Your task to perform on an android device: Open wifi settings Image 0: 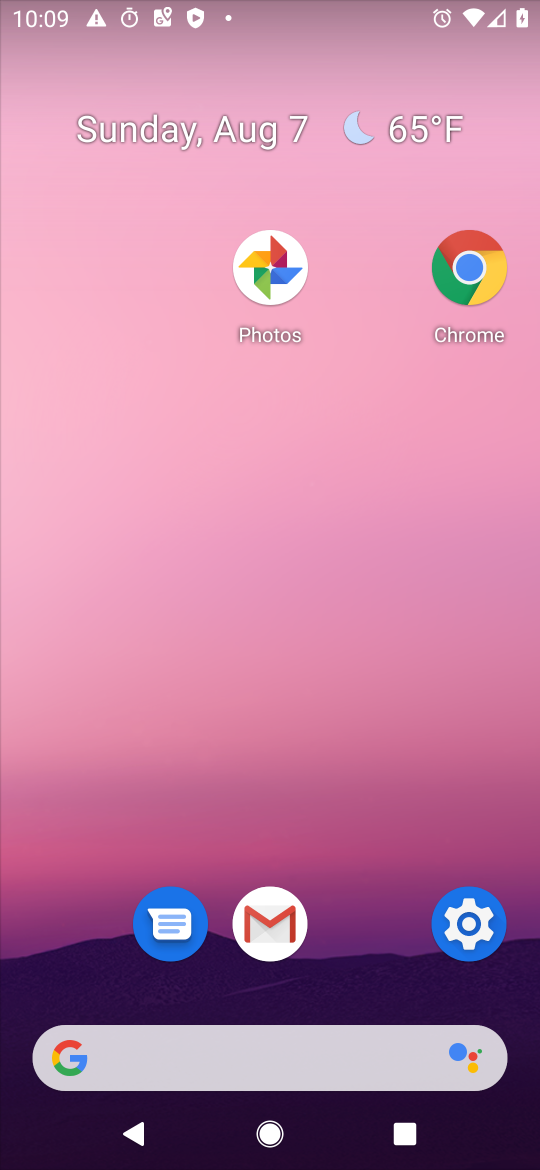
Step 0: press home button
Your task to perform on an android device: Open wifi settings Image 1: 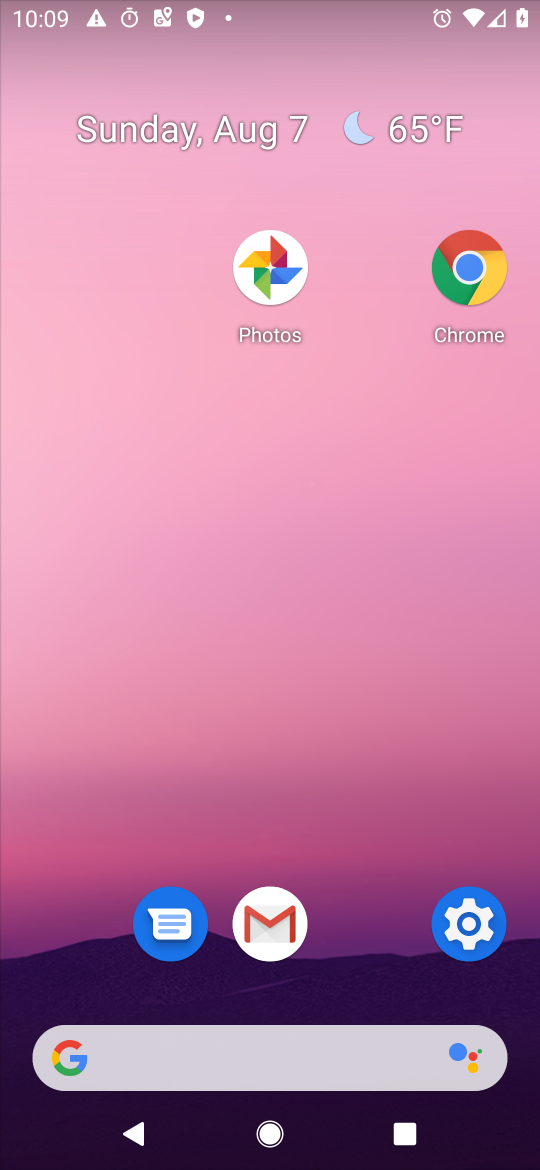
Step 1: drag from (343, 1086) to (316, 7)
Your task to perform on an android device: Open wifi settings Image 2: 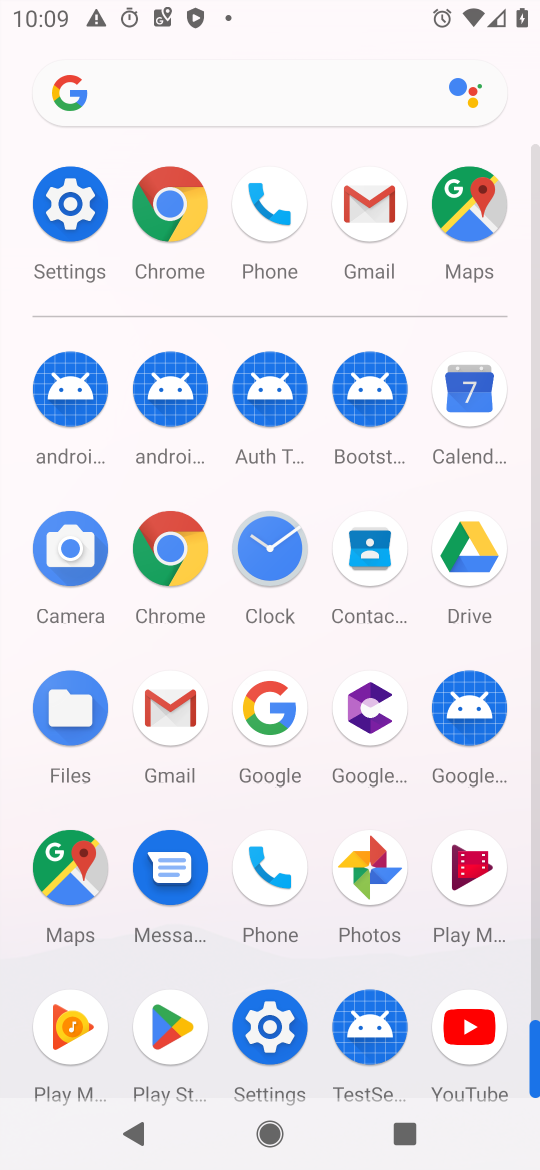
Step 2: click (62, 200)
Your task to perform on an android device: Open wifi settings Image 3: 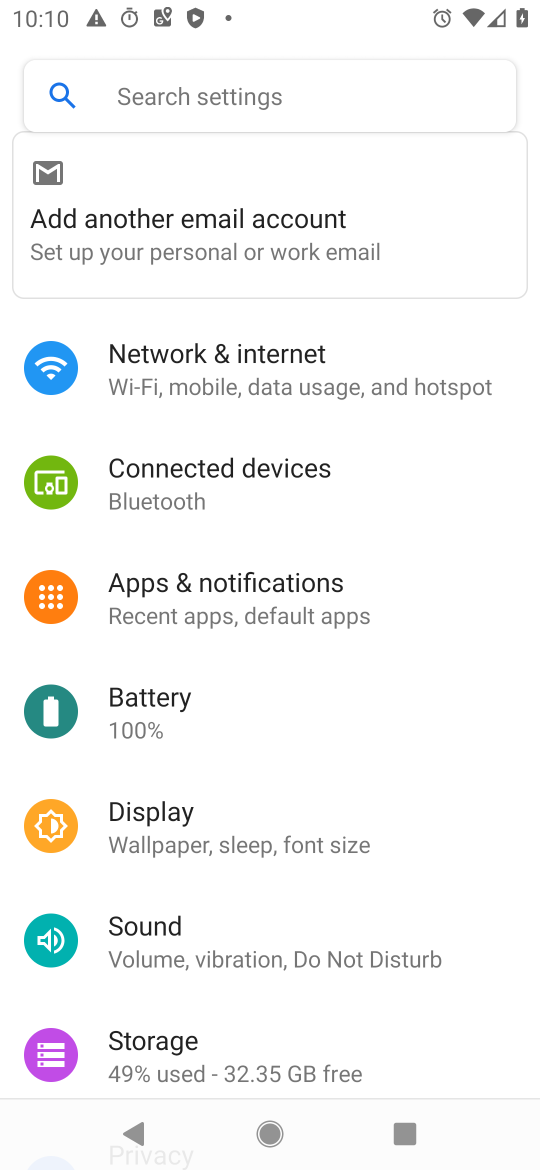
Step 3: click (207, 353)
Your task to perform on an android device: Open wifi settings Image 4: 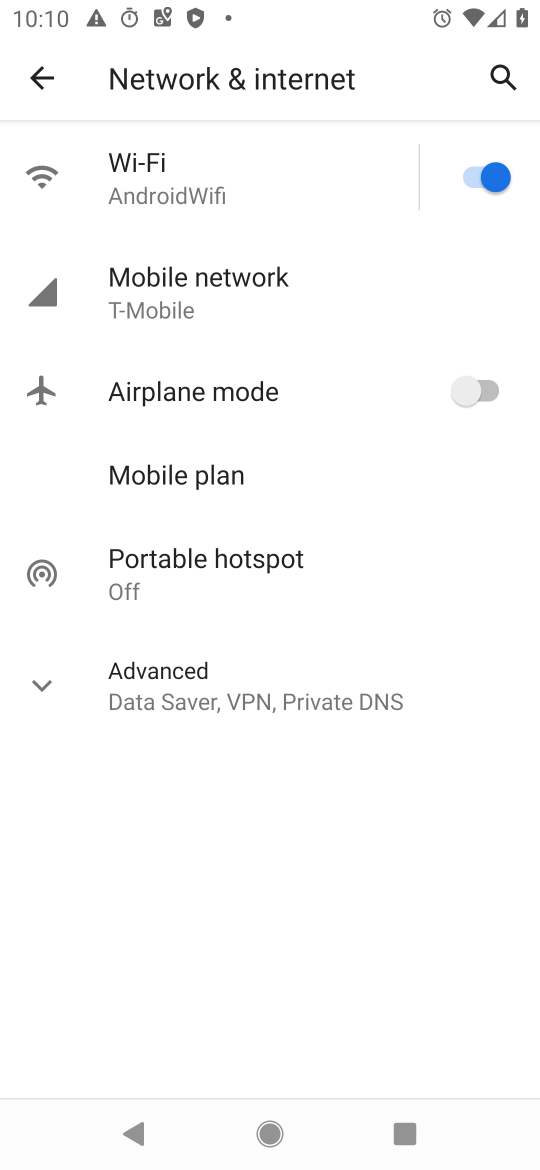
Step 4: click (172, 181)
Your task to perform on an android device: Open wifi settings Image 5: 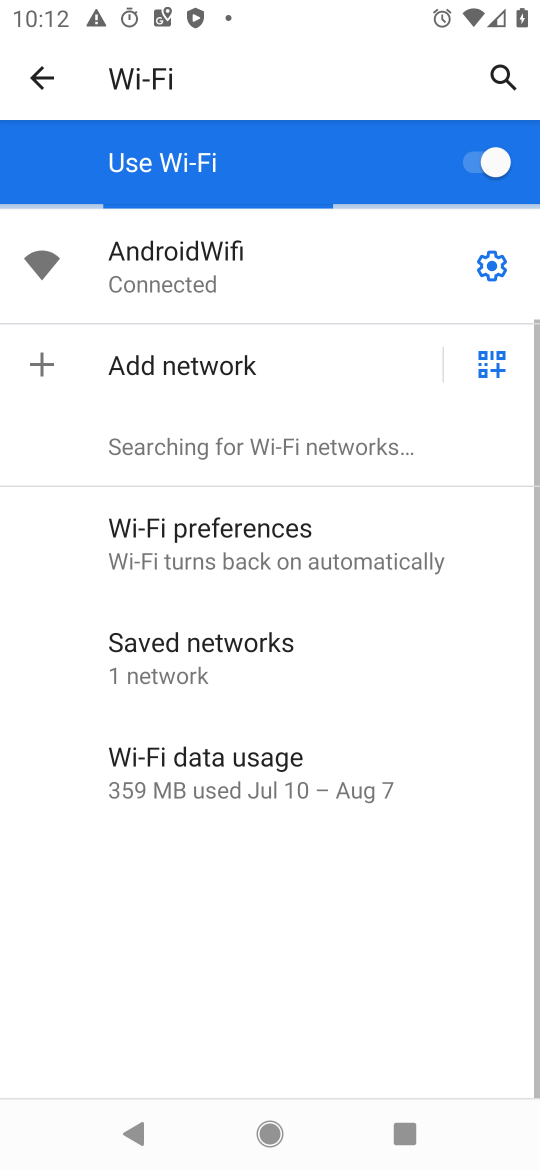
Step 5: task complete